Your task to perform on an android device: turn pop-ups off in chrome Image 0: 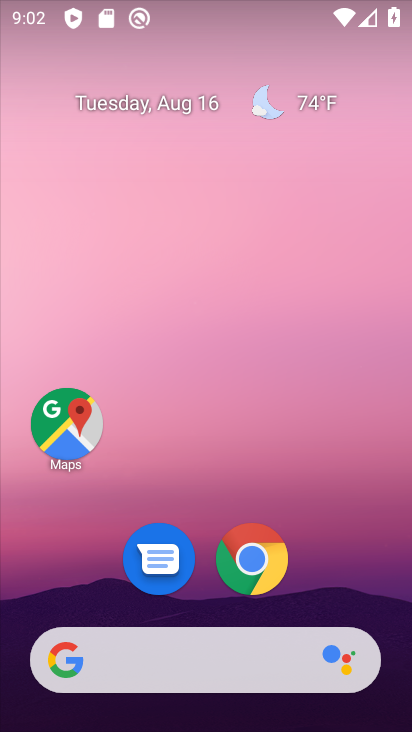
Step 0: click (251, 564)
Your task to perform on an android device: turn pop-ups off in chrome Image 1: 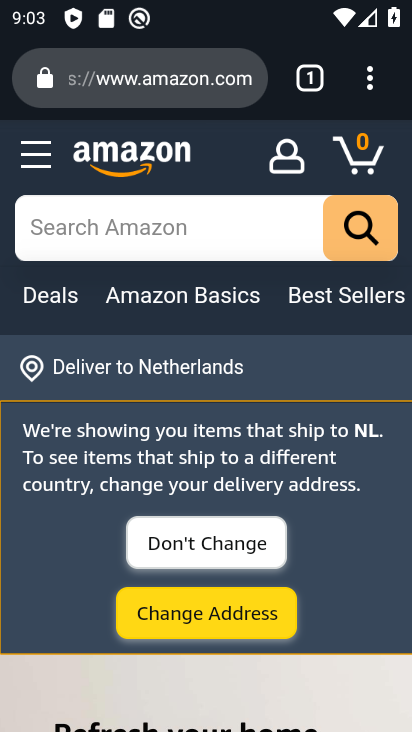
Step 1: click (383, 80)
Your task to perform on an android device: turn pop-ups off in chrome Image 2: 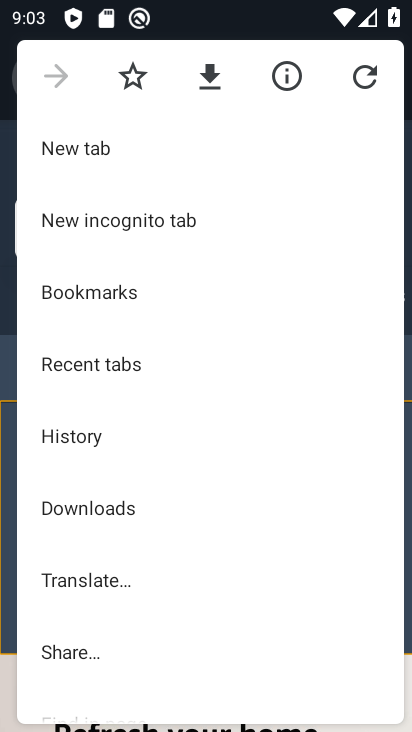
Step 2: drag from (109, 486) to (146, 390)
Your task to perform on an android device: turn pop-ups off in chrome Image 3: 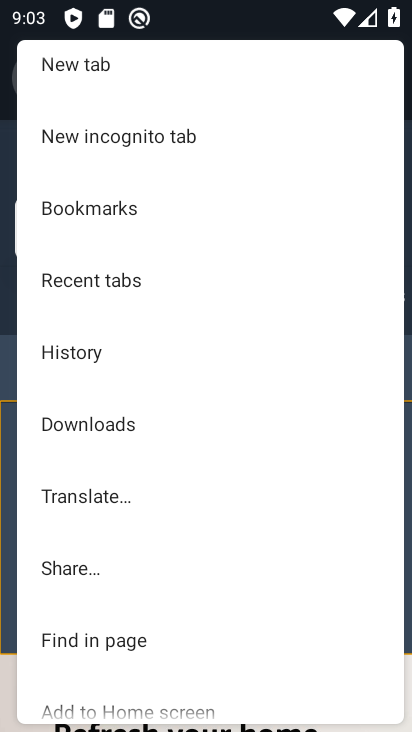
Step 3: drag from (101, 587) to (173, 483)
Your task to perform on an android device: turn pop-ups off in chrome Image 4: 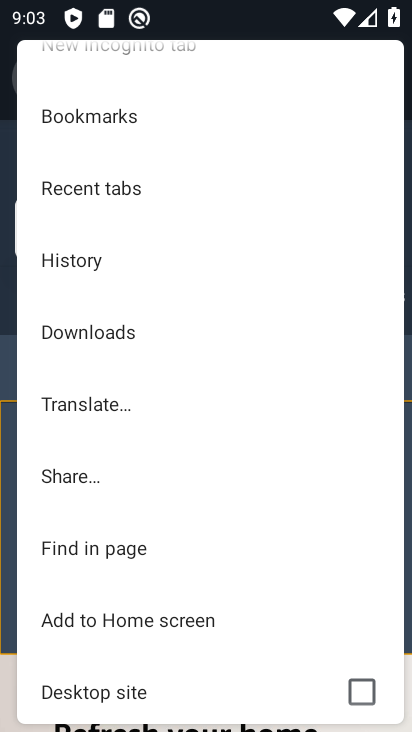
Step 4: drag from (115, 586) to (160, 499)
Your task to perform on an android device: turn pop-ups off in chrome Image 5: 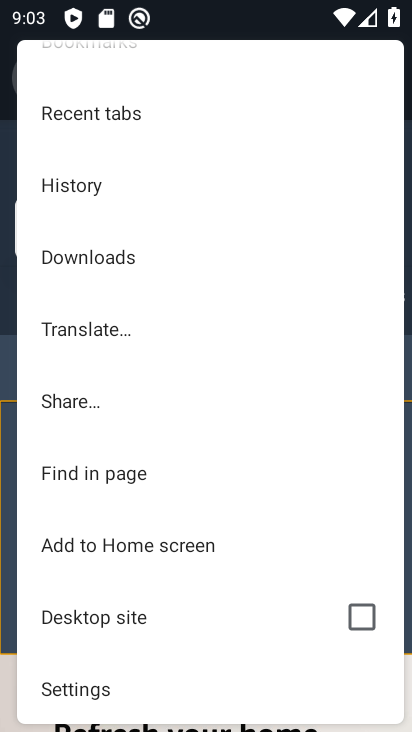
Step 5: drag from (109, 642) to (176, 550)
Your task to perform on an android device: turn pop-ups off in chrome Image 6: 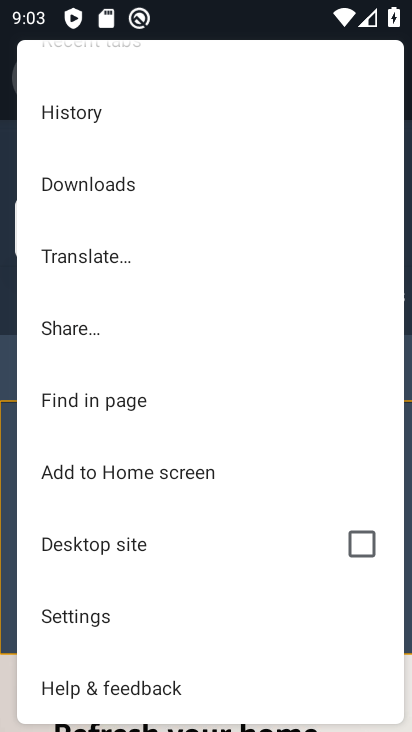
Step 6: click (93, 617)
Your task to perform on an android device: turn pop-ups off in chrome Image 7: 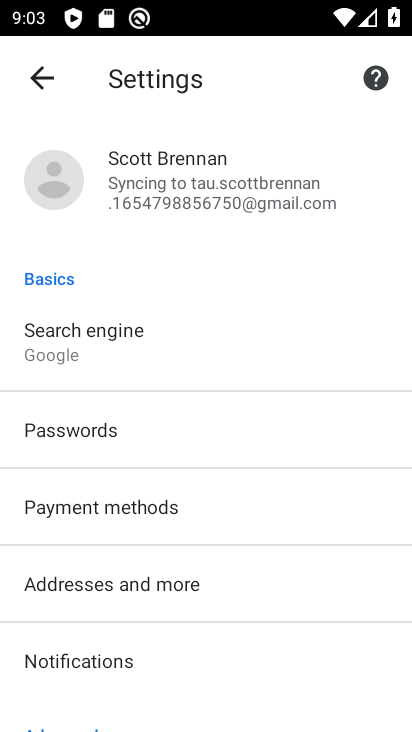
Step 7: drag from (88, 617) to (135, 502)
Your task to perform on an android device: turn pop-ups off in chrome Image 8: 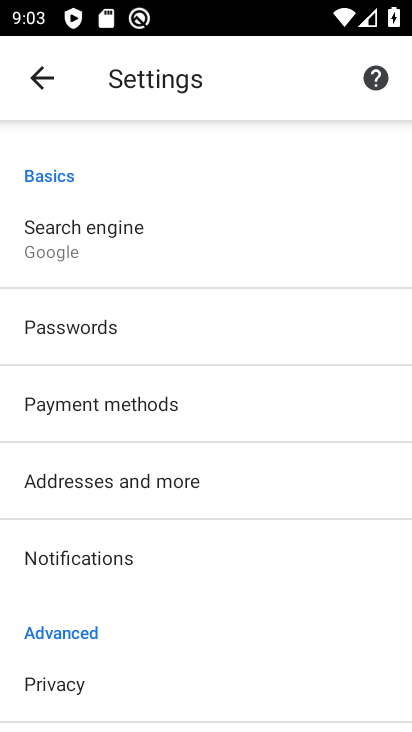
Step 8: drag from (84, 581) to (140, 482)
Your task to perform on an android device: turn pop-ups off in chrome Image 9: 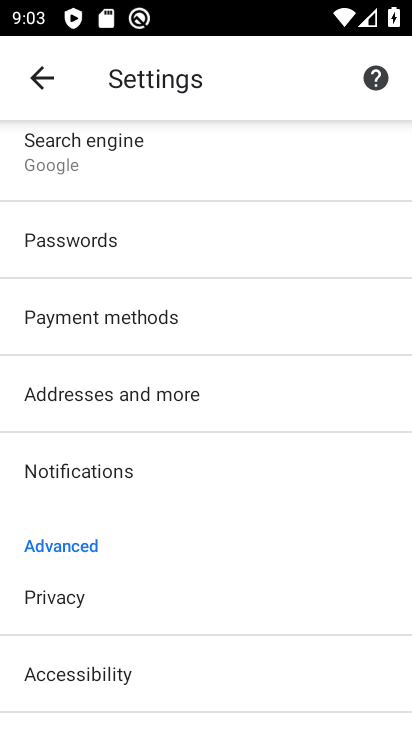
Step 9: drag from (85, 576) to (164, 467)
Your task to perform on an android device: turn pop-ups off in chrome Image 10: 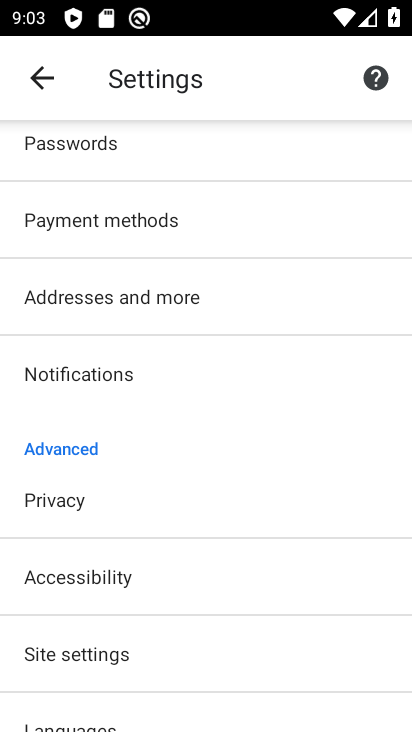
Step 10: drag from (76, 599) to (130, 510)
Your task to perform on an android device: turn pop-ups off in chrome Image 11: 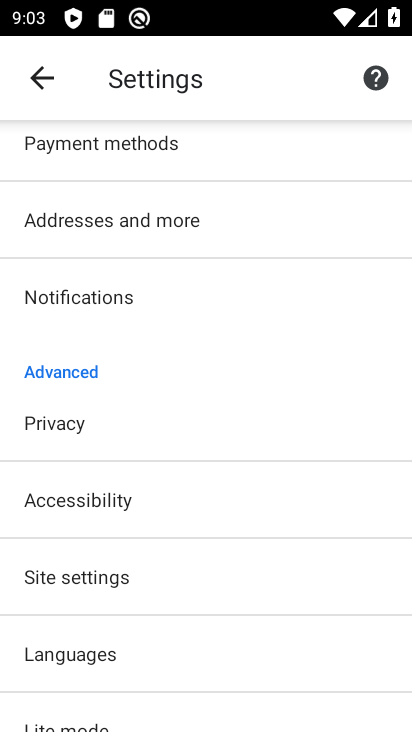
Step 11: click (106, 571)
Your task to perform on an android device: turn pop-ups off in chrome Image 12: 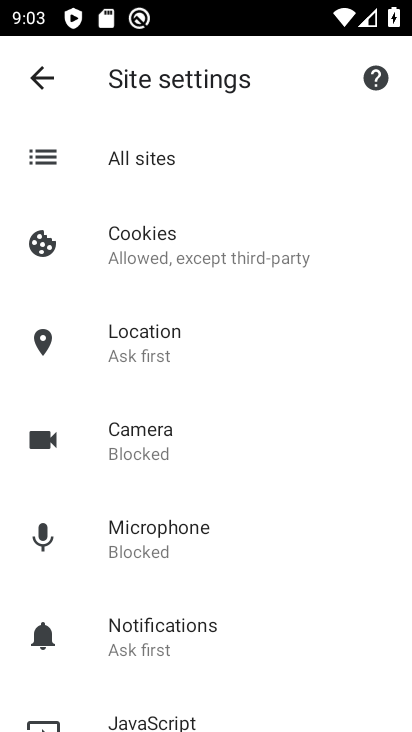
Step 12: drag from (136, 604) to (190, 487)
Your task to perform on an android device: turn pop-ups off in chrome Image 13: 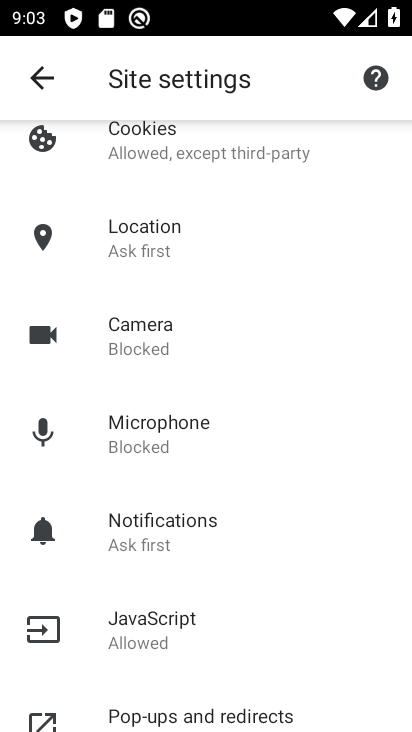
Step 13: drag from (147, 600) to (217, 480)
Your task to perform on an android device: turn pop-ups off in chrome Image 14: 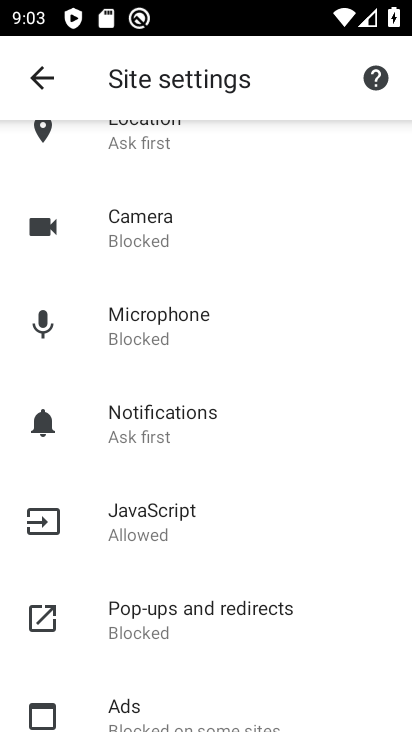
Step 14: click (177, 608)
Your task to perform on an android device: turn pop-ups off in chrome Image 15: 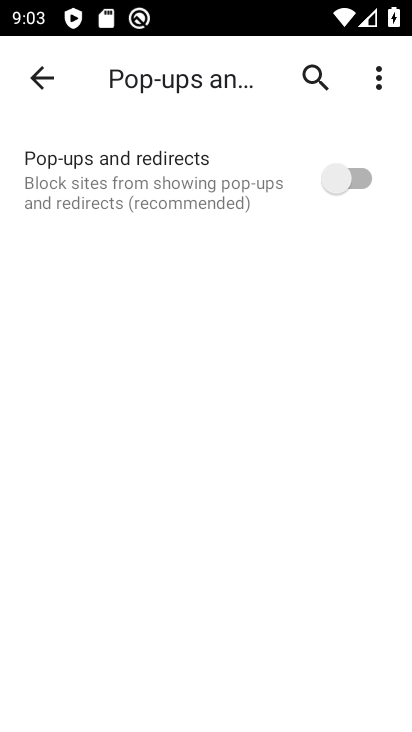
Step 15: task complete